Your task to perform on an android device: Open network settings Image 0: 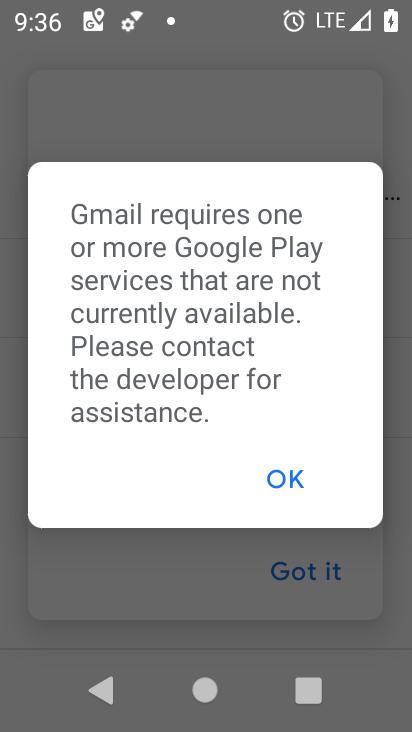
Step 0: press home button
Your task to perform on an android device: Open network settings Image 1: 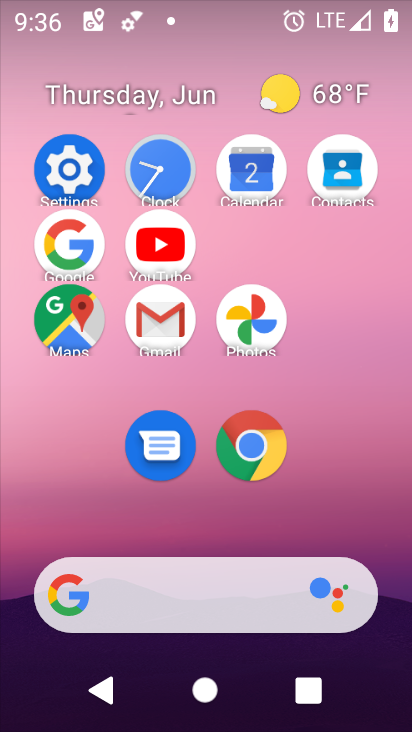
Step 1: click (75, 159)
Your task to perform on an android device: Open network settings Image 2: 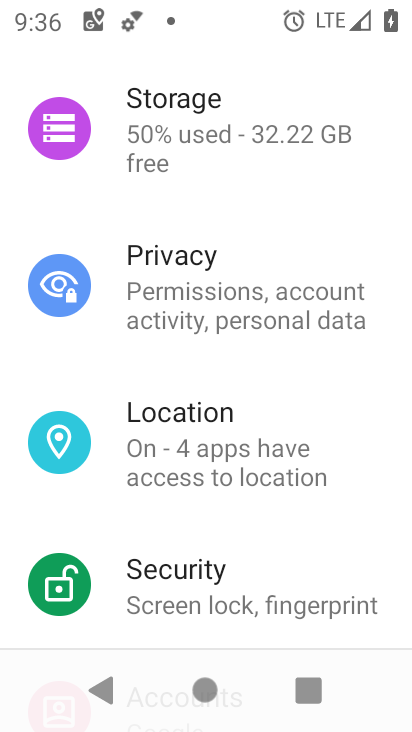
Step 2: drag from (313, 120) to (307, 539)
Your task to perform on an android device: Open network settings Image 3: 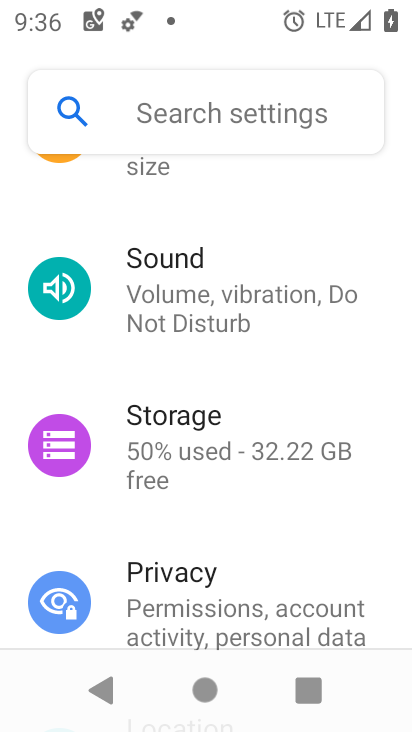
Step 3: drag from (314, 252) to (329, 514)
Your task to perform on an android device: Open network settings Image 4: 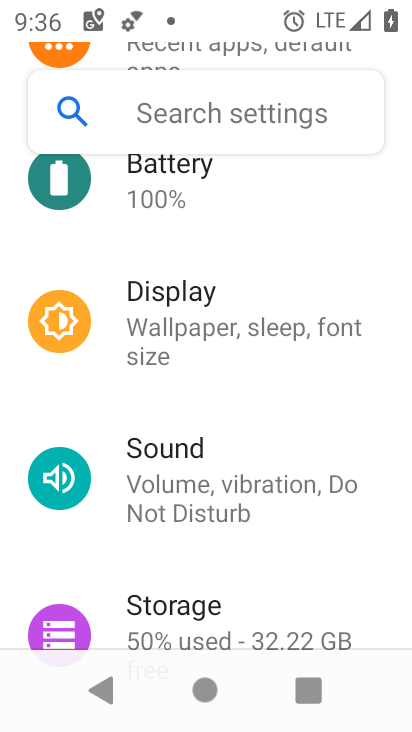
Step 4: drag from (273, 215) to (315, 561)
Your task to perform on an android device: Open network settings Image 5: 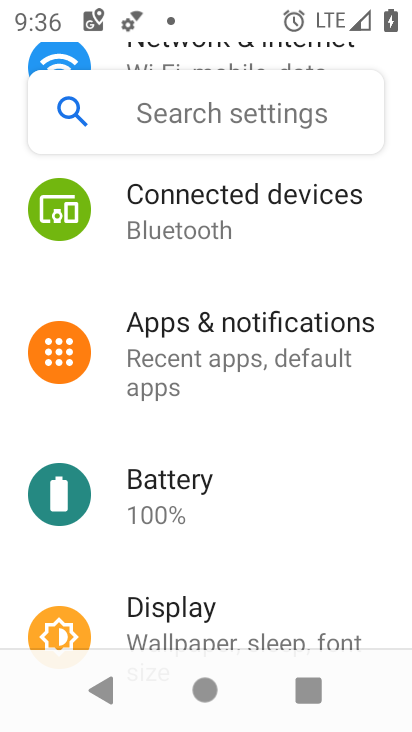
Step 5: drag from (295, 185) to (342, 476)
Your task to perform on an android device: Open network settings Image 6: 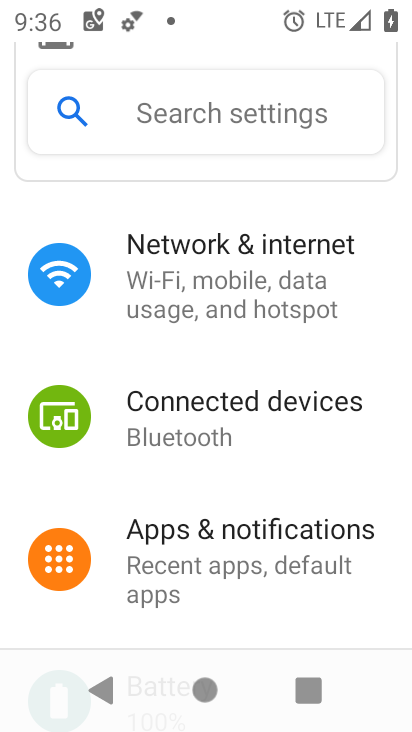
Step 6: click (238, 275)
Your task to perform on an android device: Open network settings Image 7: 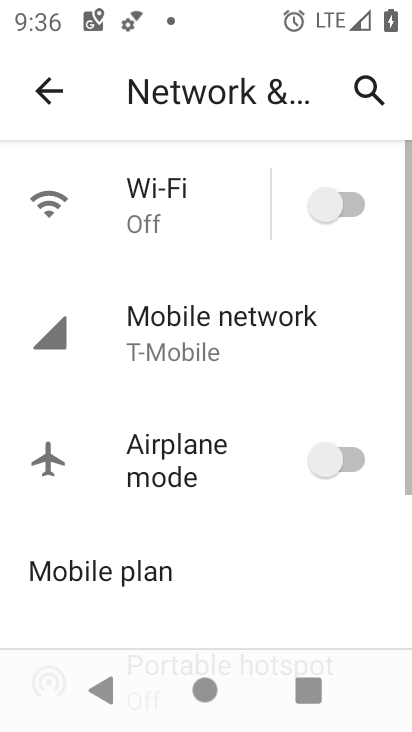
Step 7: task complete